Your task to perform on an android device: Go to eBay Image 0: 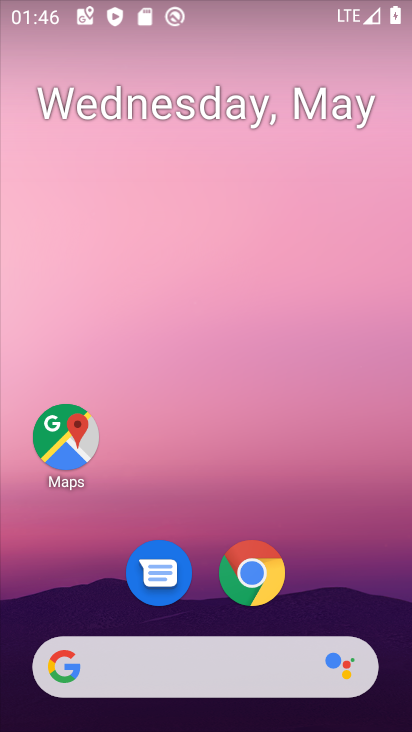
Step 0: click (231, 570)
Your task to perform on an android device: Go to eBay Image 1: 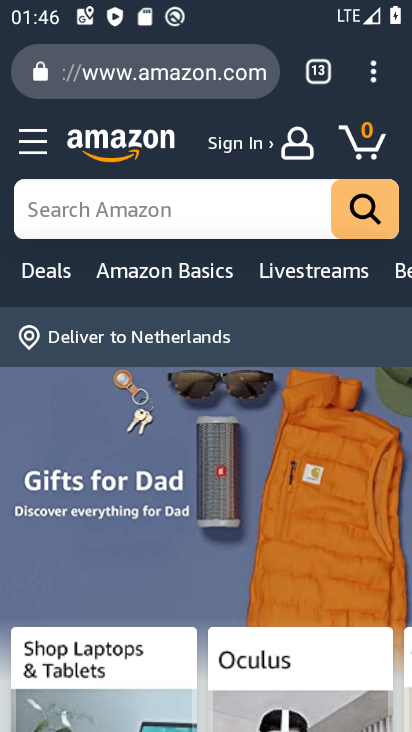
Step 1: click (378, 52)
Your task to perform on an android device: Go to eBay Image 2: 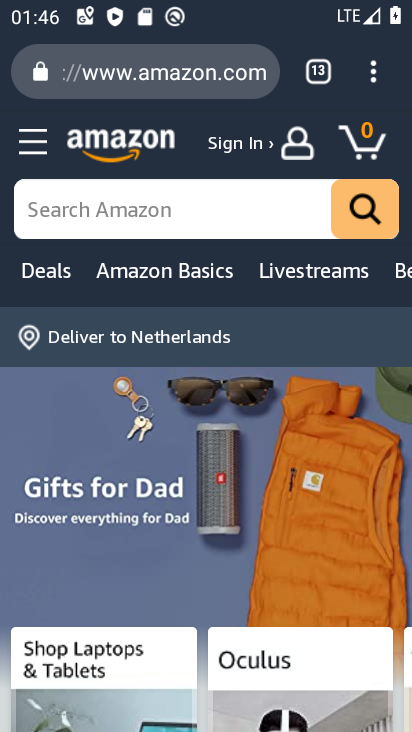
Step 2: click (372, 69)
Your task to perform on an android device: Go to eBay Image 3: 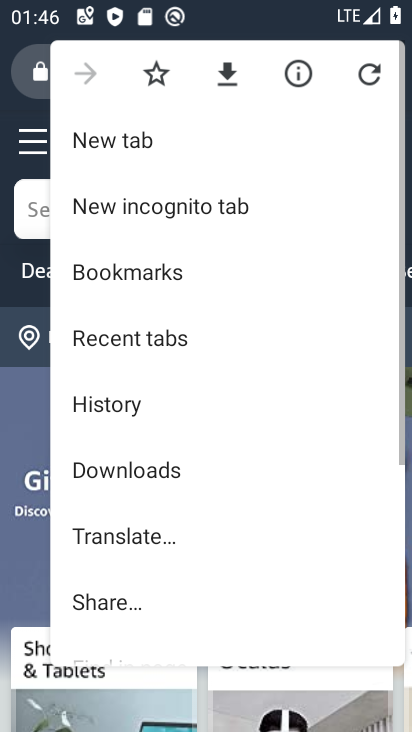
Step 3: click (177, 141)
Your task to perform on an android device: Go to eBay Image 4: 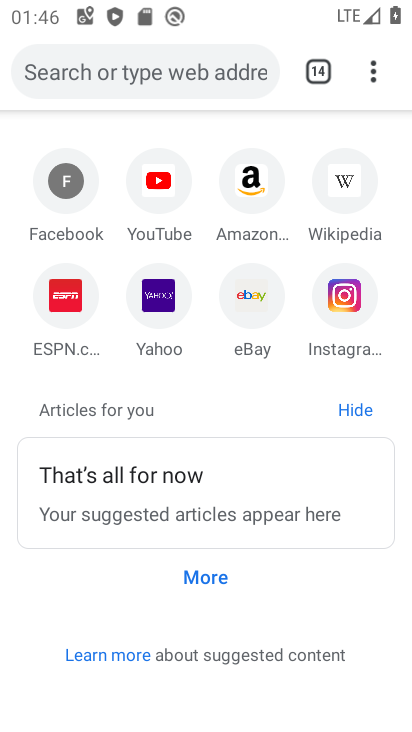
Step 4: click (241, 287)
Your task to perform on an android device: Go to eBay Image 5: 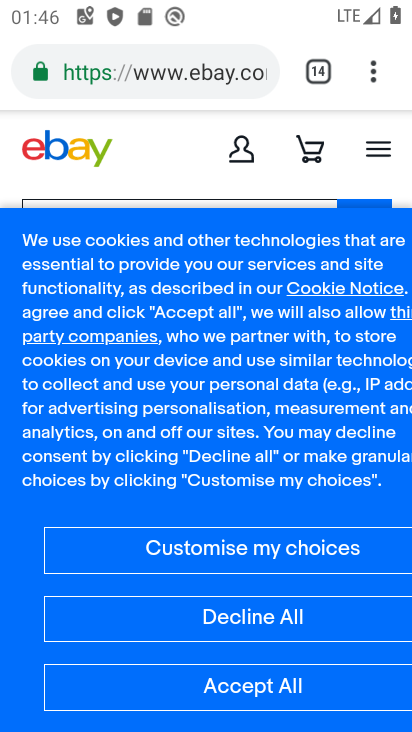
Step 5: task complete